Your task to perform on an android device: Go to Amazon Image 0: 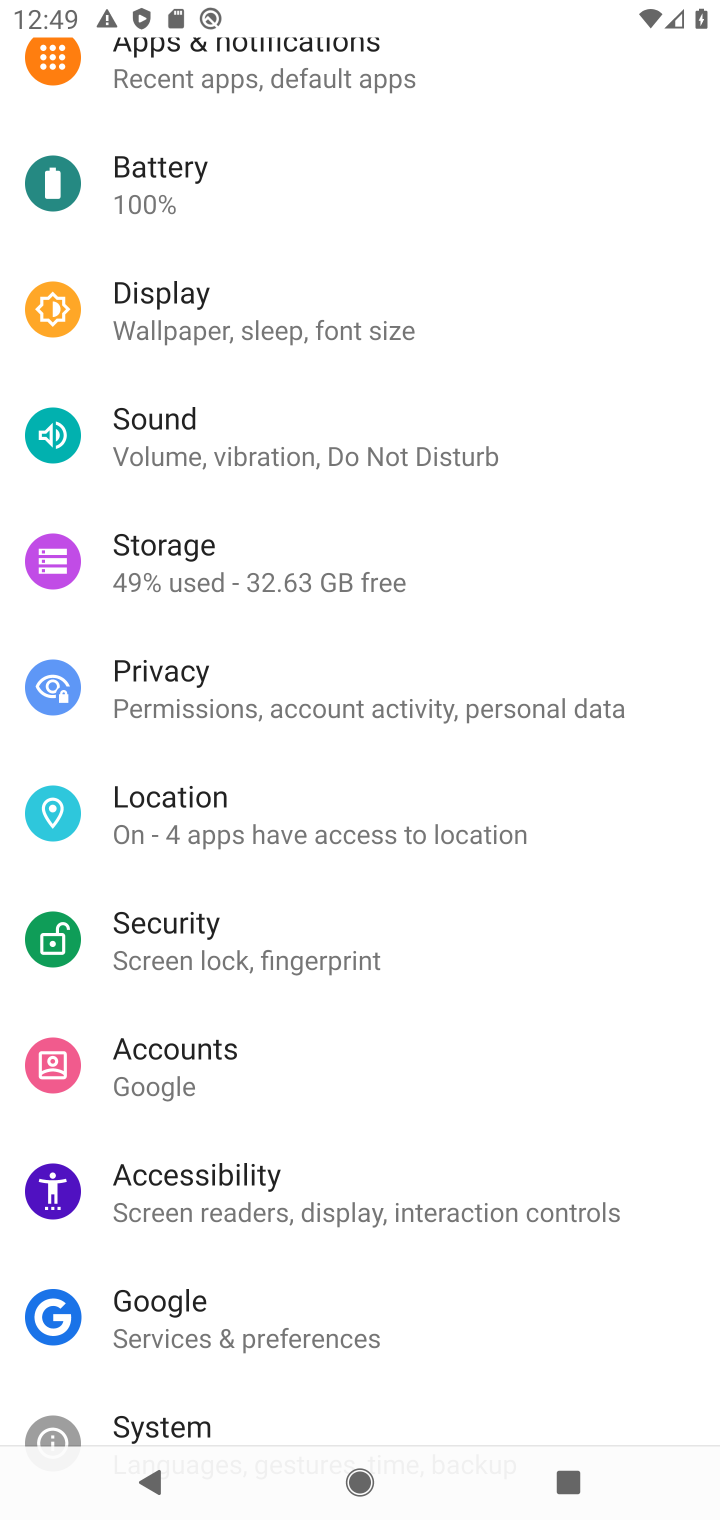
Step 0: press home button
Your task to perform on an android device: Go to Amazon Image 1: 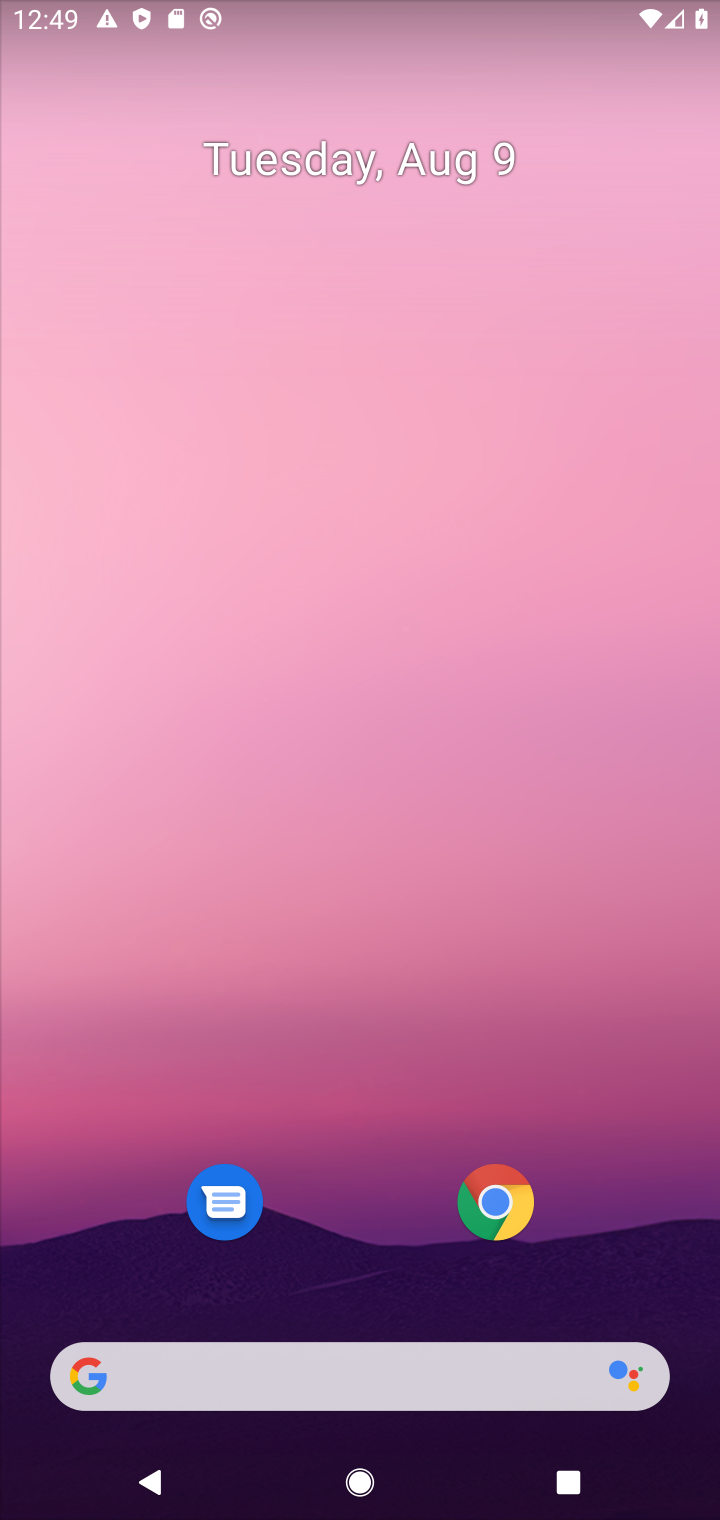
Step 1: click (492, 1188)
Your task to perform on an android device: Go to Amazon Image 2: 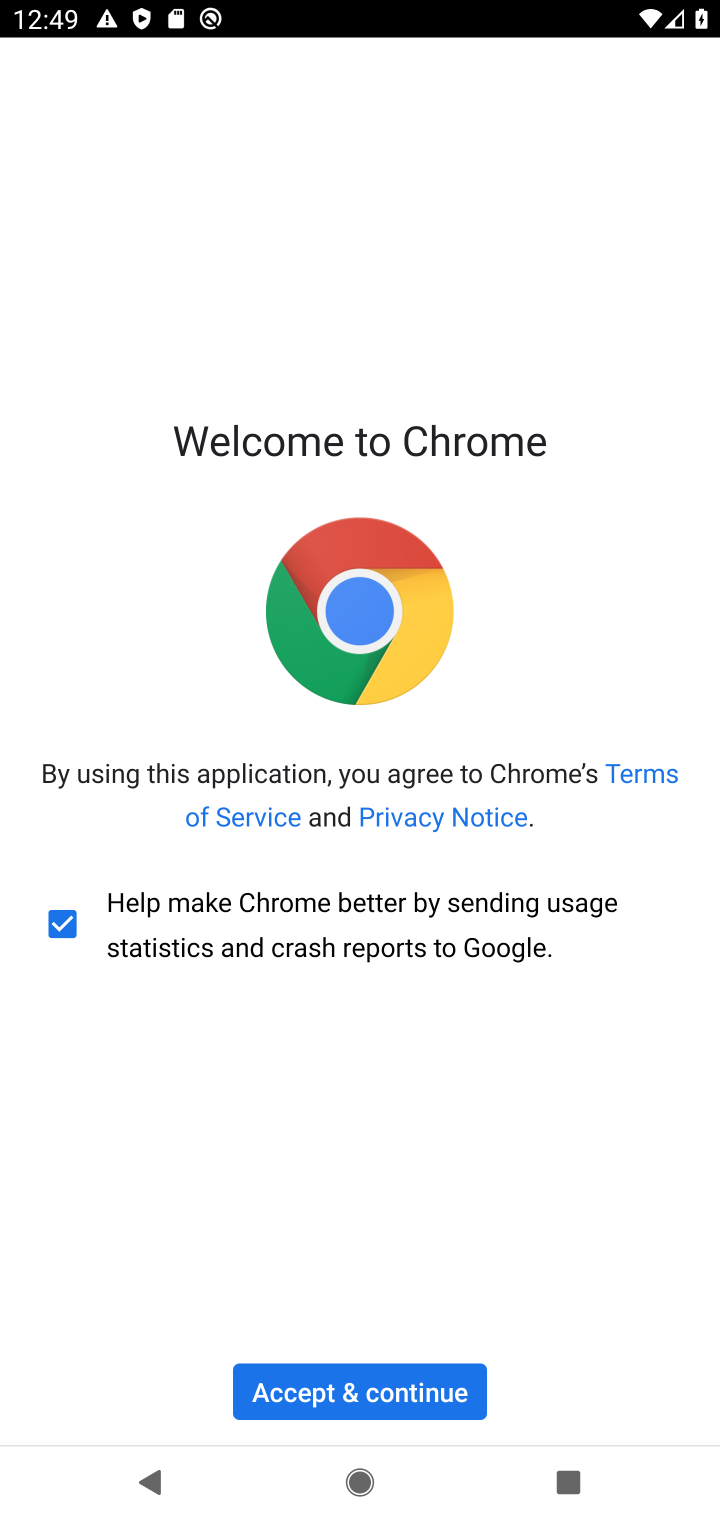
Step 2: click (359, 1383)
Your task to perform on an android device: Go to Amazon Image 3: 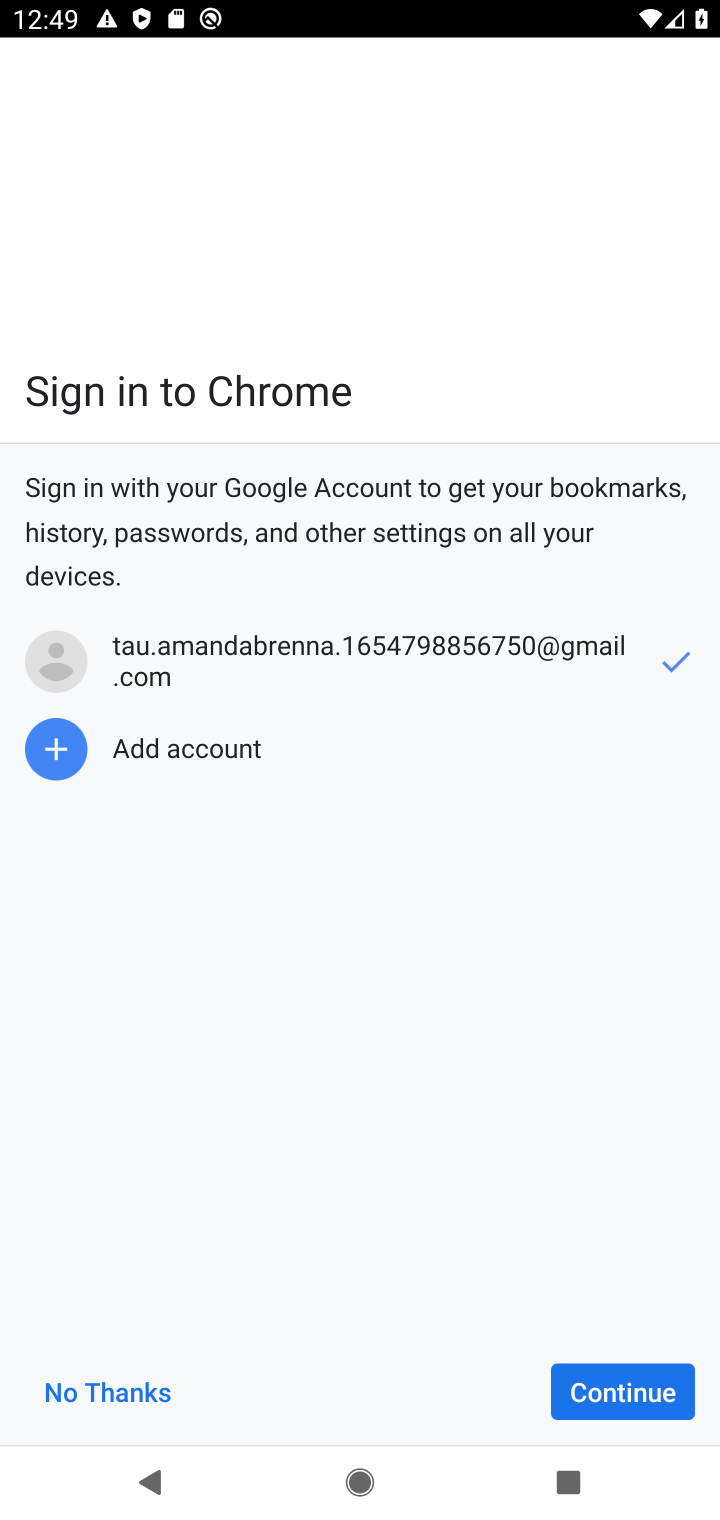
Step 3: click (634, 1388)
Your task to perform on an android device: Go to Amazon Image 4: 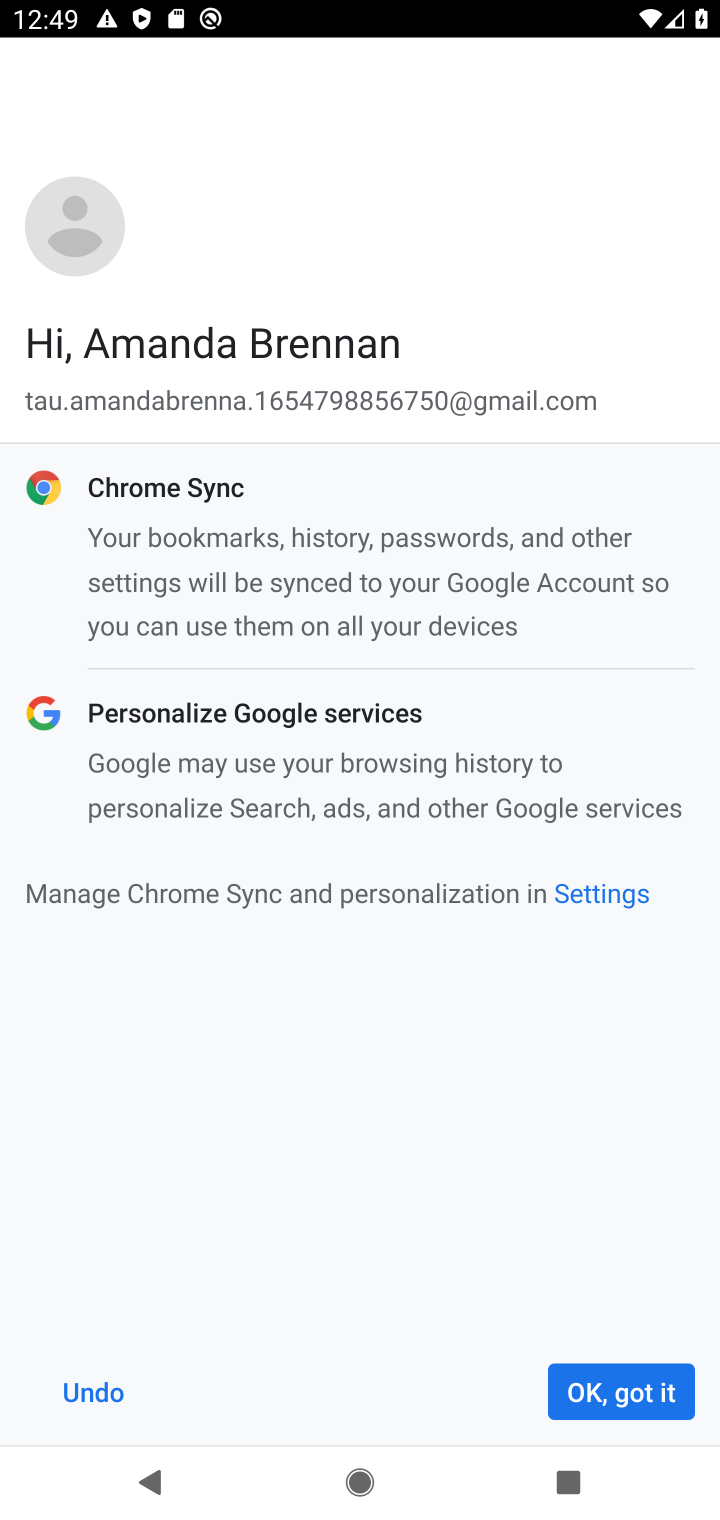
Step 4: click (634, 1388)
Your task to perform on an android device: Go to Amazon Image 5: 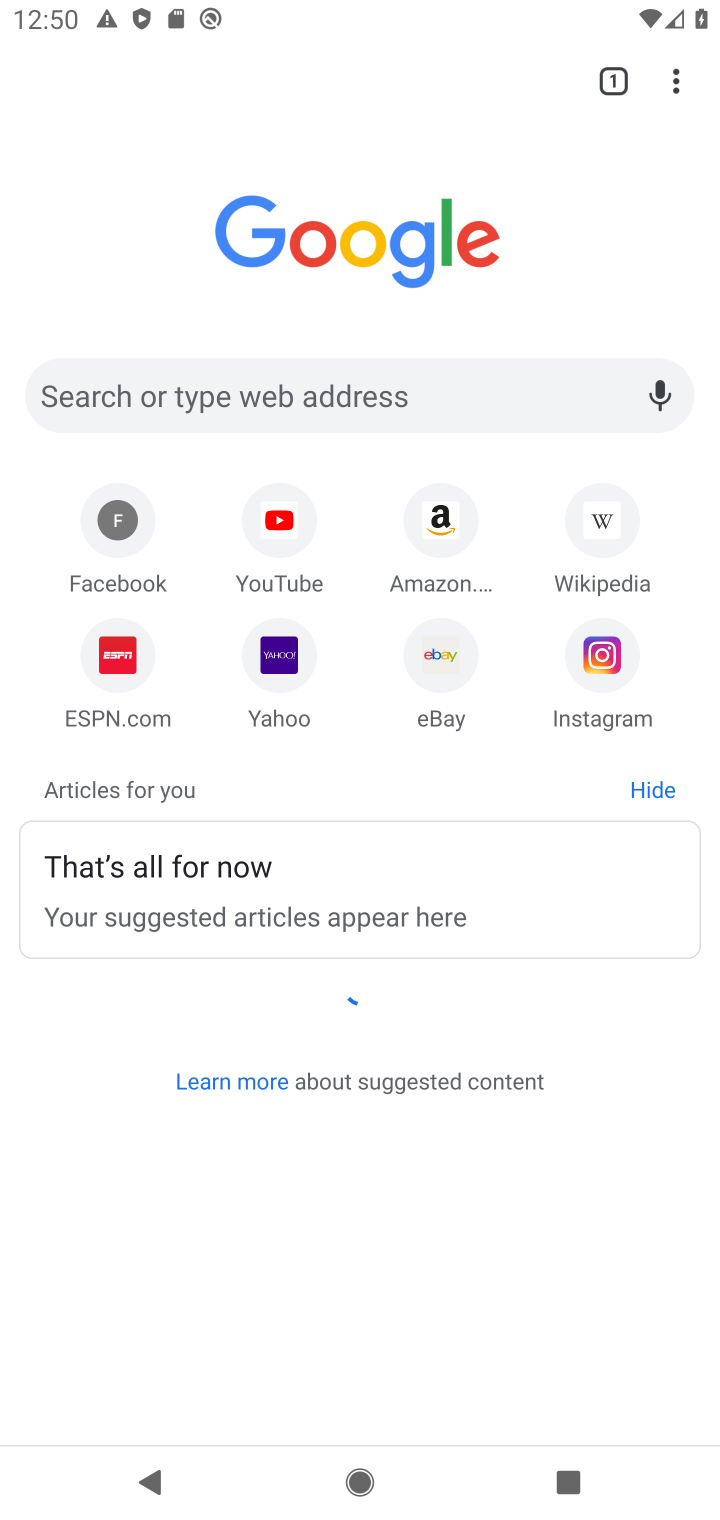
Step 5: click (443, 511)
Your task to perform on an android device: Go to Amazon Image 6: 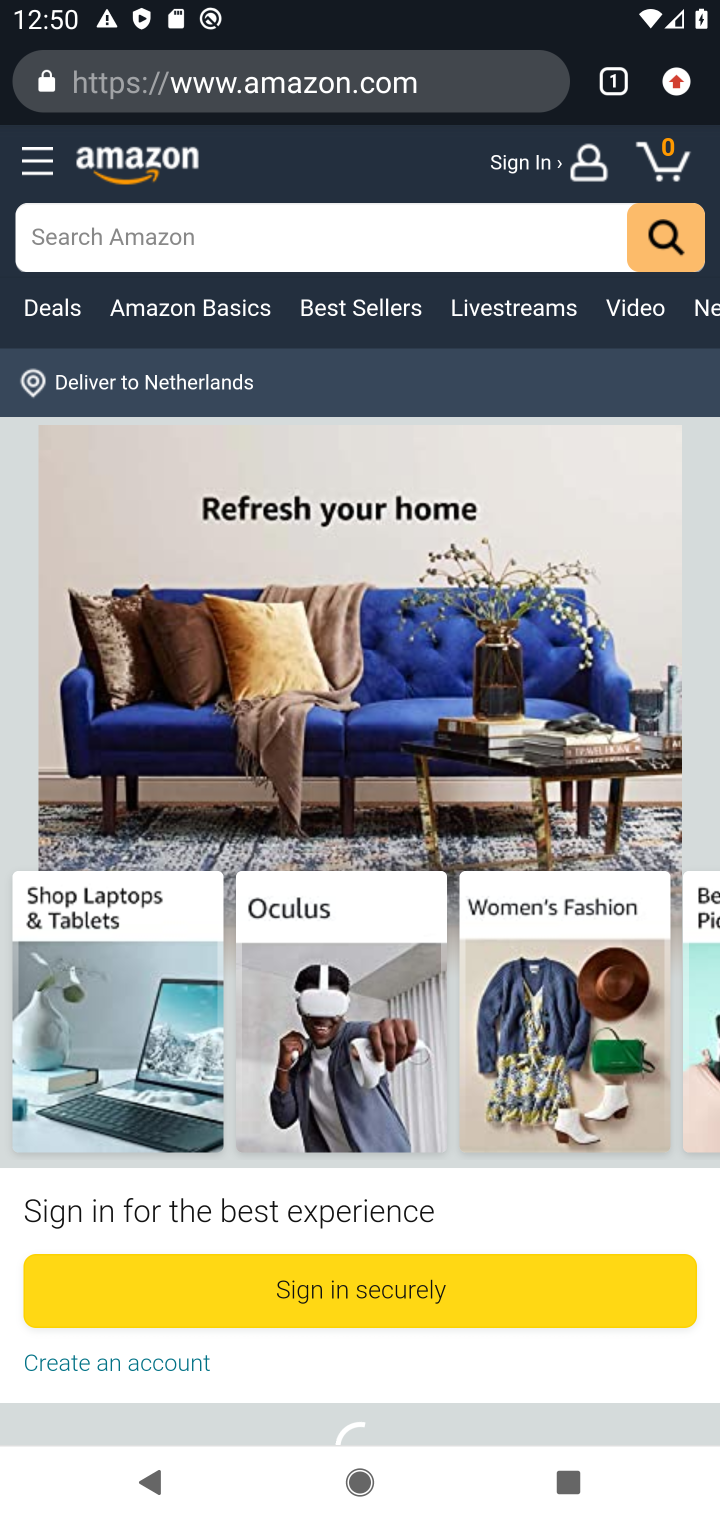
Step 6: task complete